Your task to perform on an android device: Check the weather Image 0: 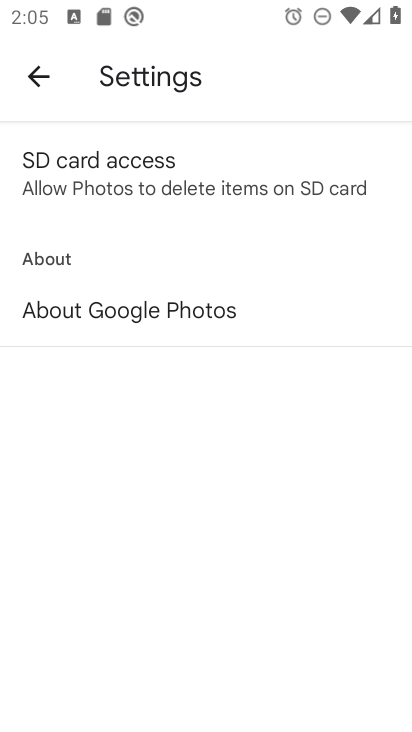
Step 0: press home button
Your task to perform on an android device: Check the weather Image 1: 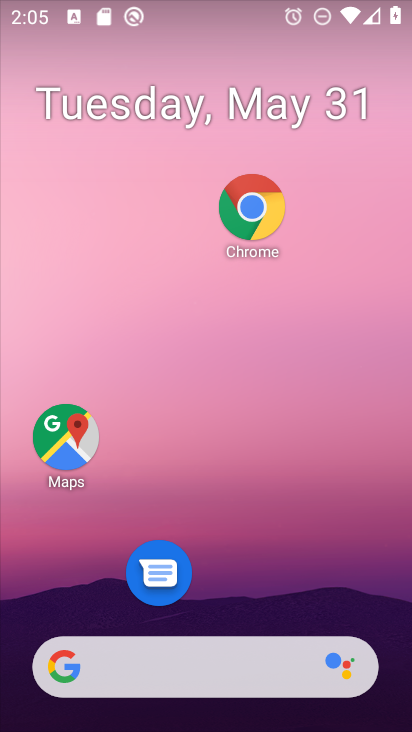
Step 1: drag from (198, 646) to (179, 21)
Your task to perform on an android device: Check the weather Image 2: 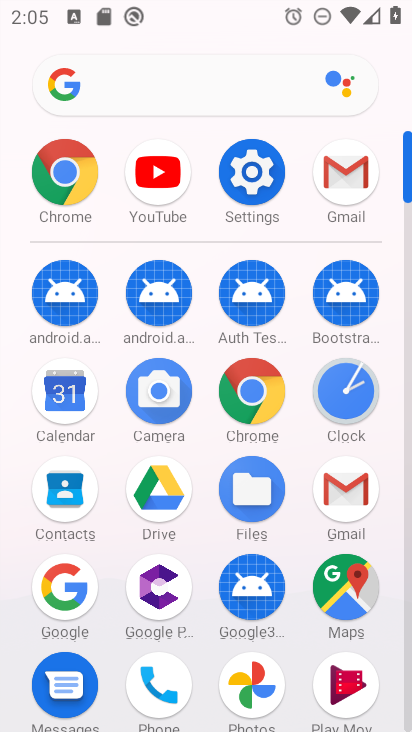
Step 2: click (69, 598)
Your task to perform on an android device: Check the weather Image 3: 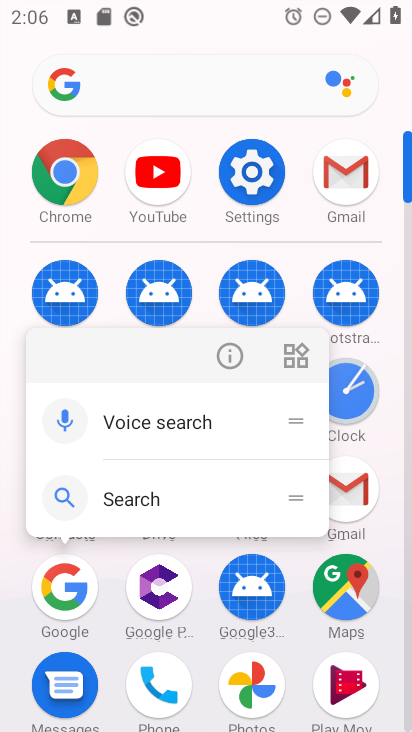
Step 3: click (61, 606)
Your task to perform on an android device: Check the weather Image 4: 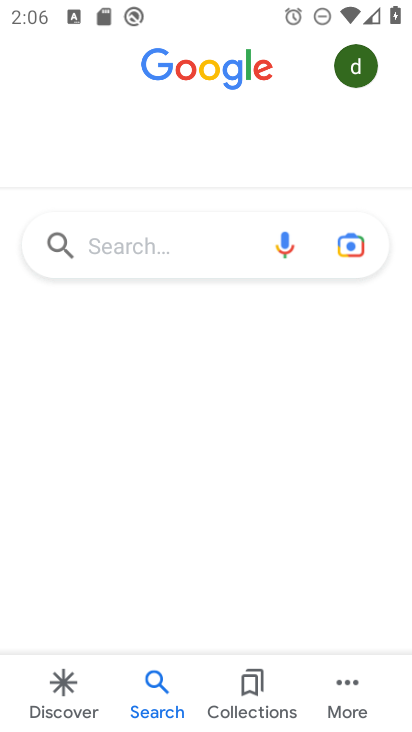
Step 4: click (131, 248)
Your task to perform on an android device: Check the weather Image 5: 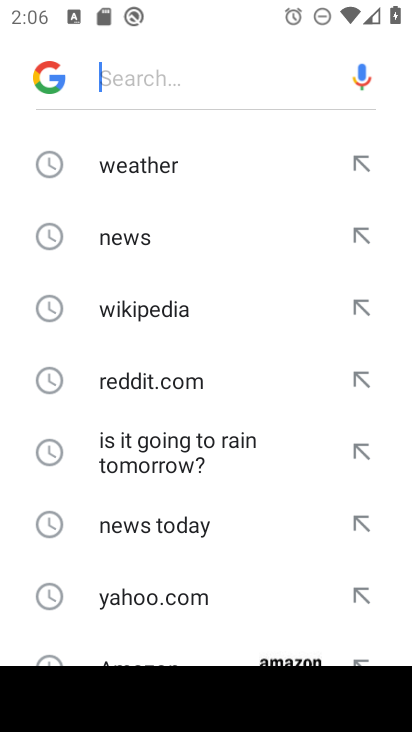
Step 5: click (148, 167)
Your task to perform on an android device: Check the weather Image 6: 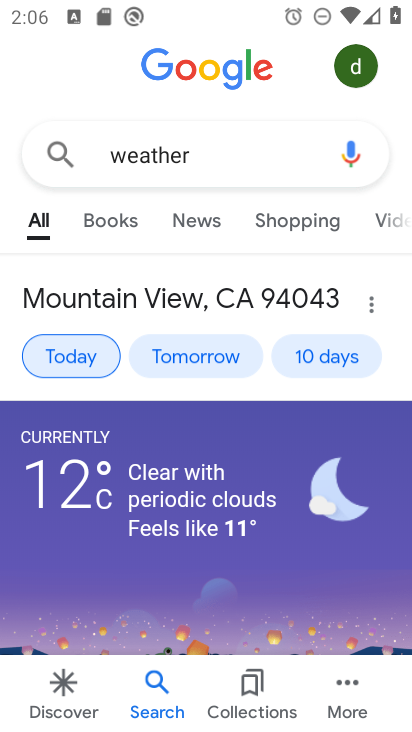
Step 6: task complete